Your task to perform on an android device: Open Reddit.com Image 0: 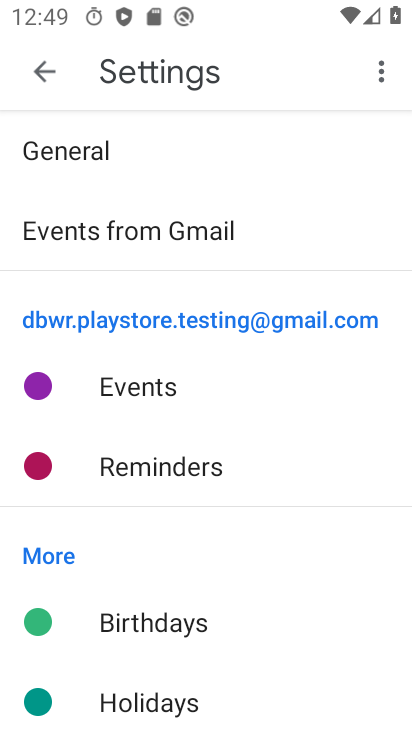
Step 0: press back button
Your task to perform on an android device: Open Reddit.com Image 1: 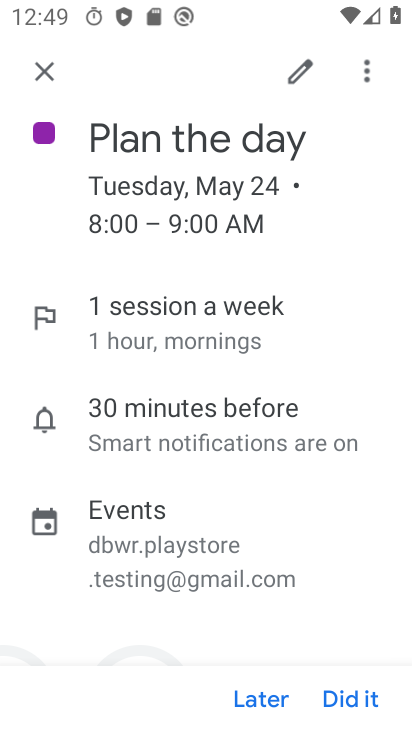
Step 1: click (273, 701)
Your task to perform on an android device: Open Reddit.com Image 2: 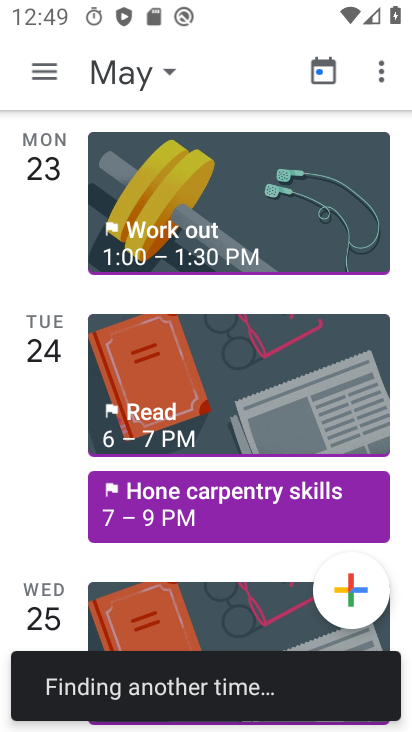
Step 2: press back button
Your task to perform on an android device: Open Reddit.com Image 3: 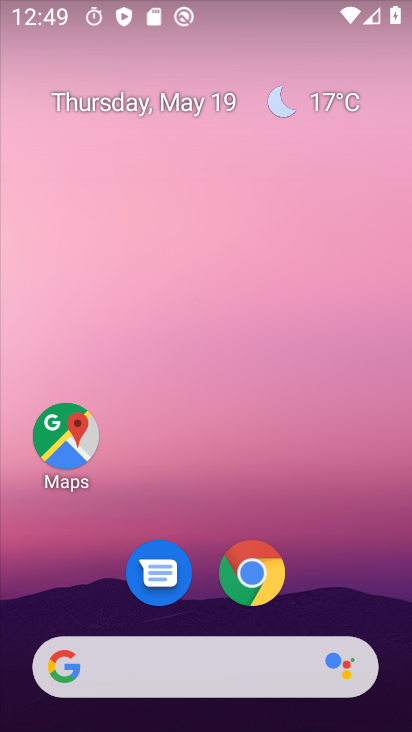
Step 3: click (263, 573)
Your task to perform on an android device: Open Reddit.com Image 4: 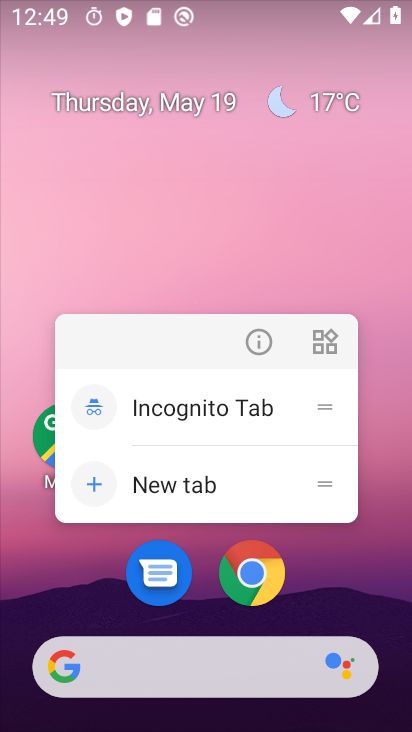
Step 4: click (246, 567)
Your task to perform on an android device: Open Reddit.com Image 5: 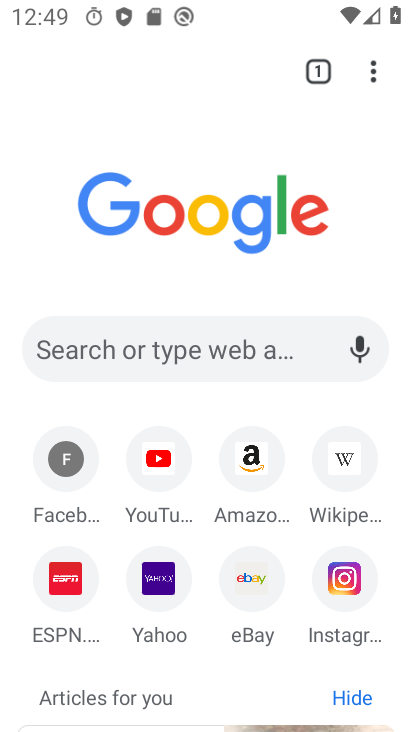
Step 5: click (182, 341)
Your task to perform on an android device: Open Reddit.com Image 6: 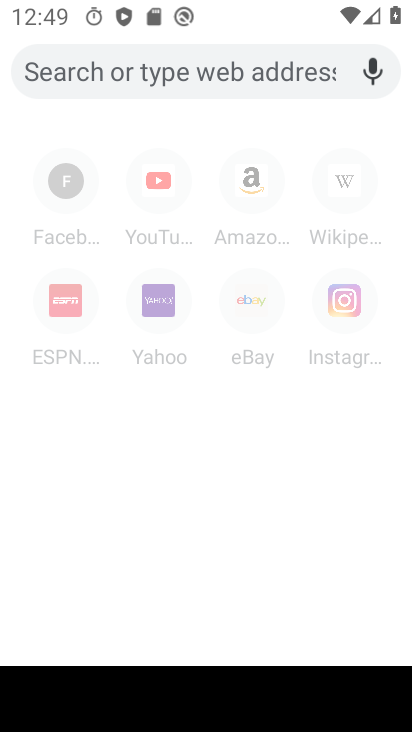
Step 6: type "reddit.com"
Your task to perform on an android device: Open Reddit.com Image 7: 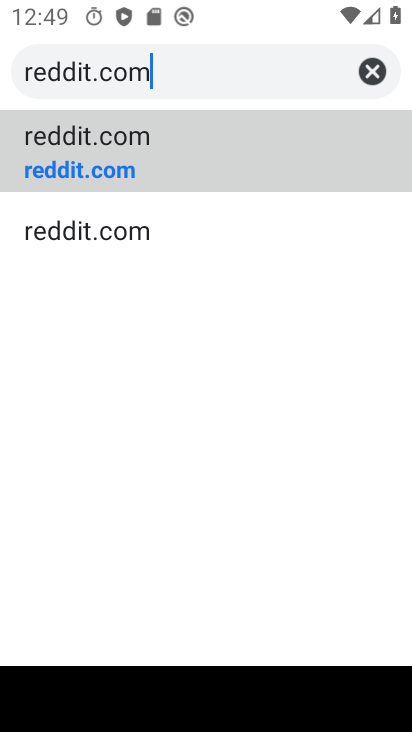
Step 7: click (129, 145)
Your task to perform on an android device: Open Reddit.com Image 8: 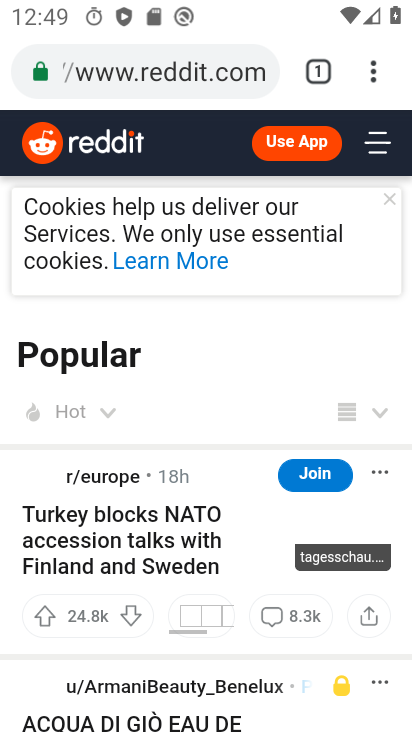
Step 8: task complete